Your task to perform on an android device: open chrome and create a bookmark for the current page Image 0: 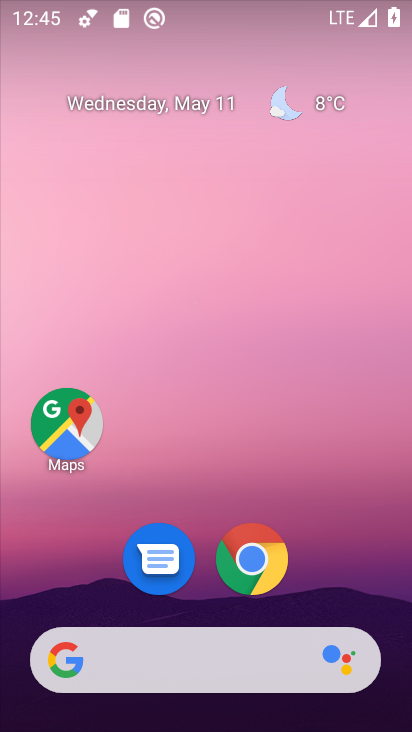
Step 0: click (247, 562)
Your task to perform on an android device: open chrome and create a bookmark for the current page Image 1: 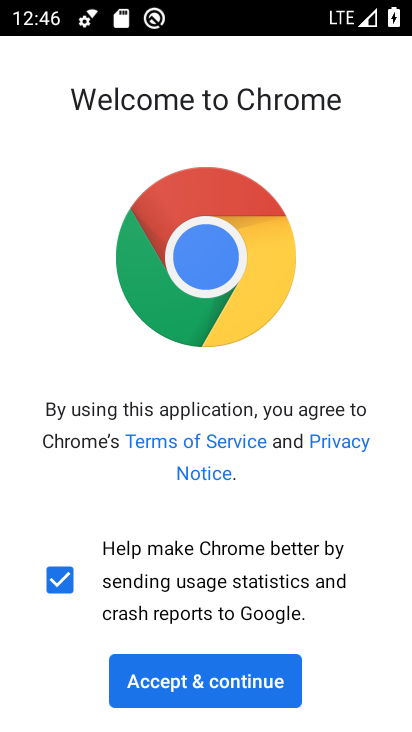
Step 1: click (232, 667)
Your task to perform on an android device: open chrome and create a bookmark for the current page Image 2: 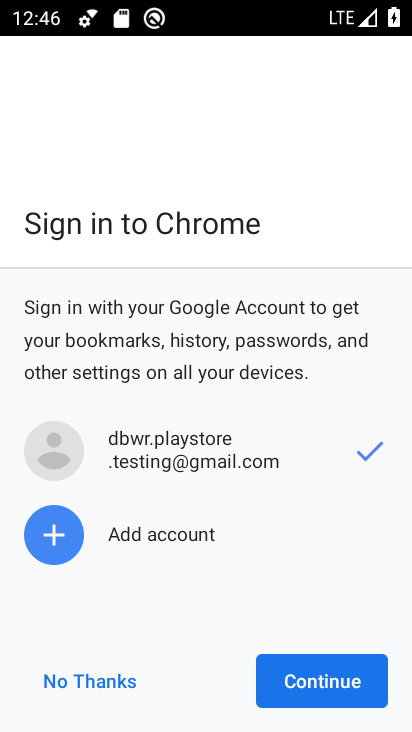
Step 2: click (342, 675)
Your task to perform on an android device: open chrome and create a bookmark for the current page Image 3: 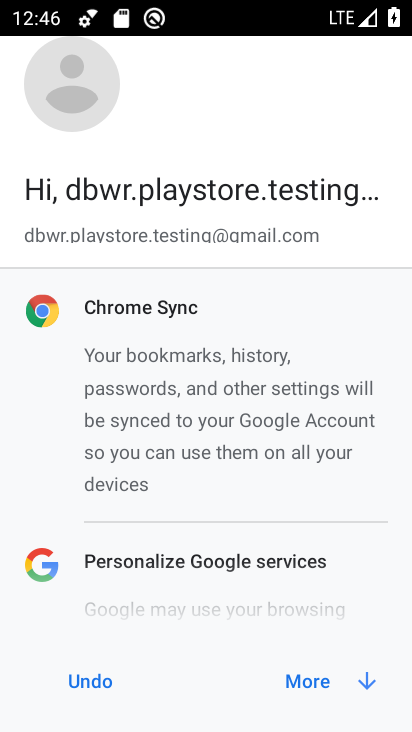
Step 3: click (306, 685)
Your task to perform on an android device: open chrome and create a bookmark for the current page Image 4: 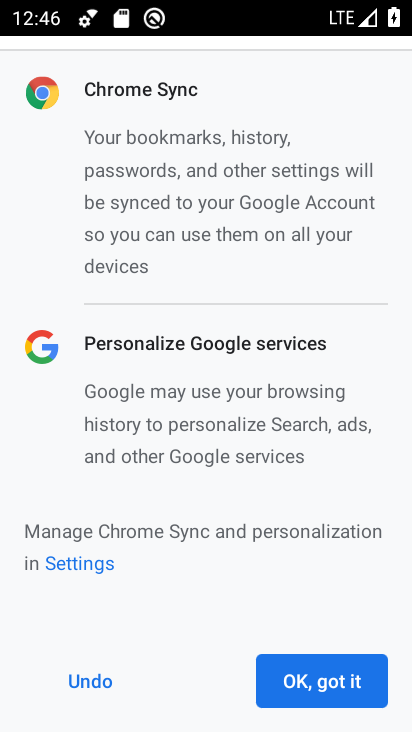
Step 4: click (303, 695)
Your task to perform on an android device: open chrome and create a bookmark for the current page Image 5: 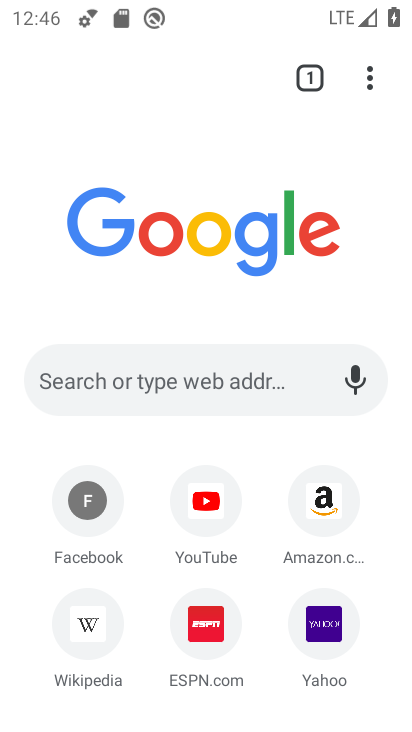
Step 5: click (368, 79)
Your task to perform on an android device: open chrome and create a bookmark for the current page Image 6: 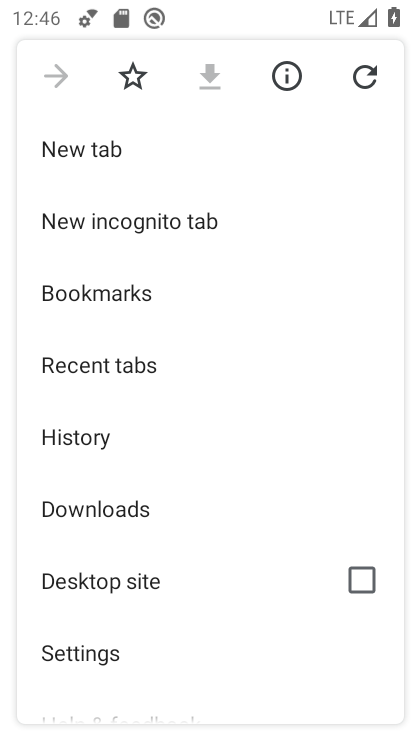
Step 6: click (135, 74)
Your task to perform on an android device: open chrome and create a bookmark for the current page Image 7: 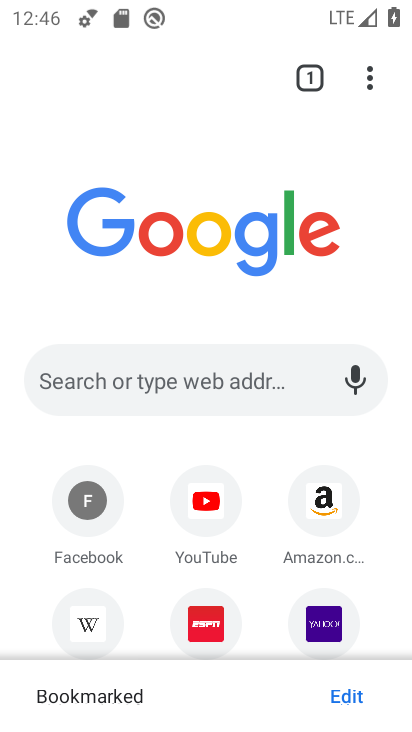
Step 7: task complete